Your task to perform on an android device: Check the weather Image 0: 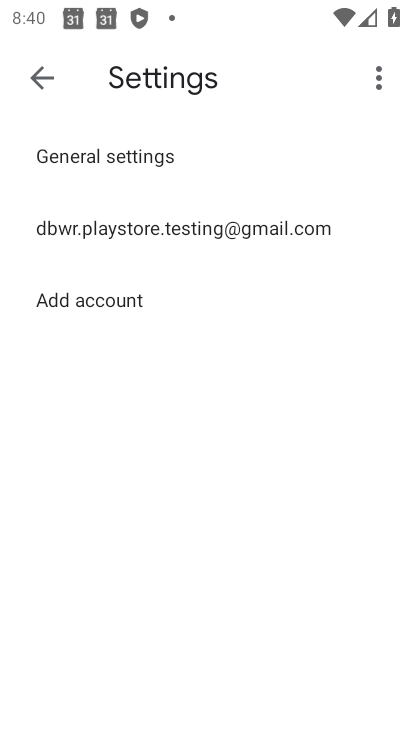
Step 0: click (30, 70)
Your task to perform on an android device: Check the weather Image 1: 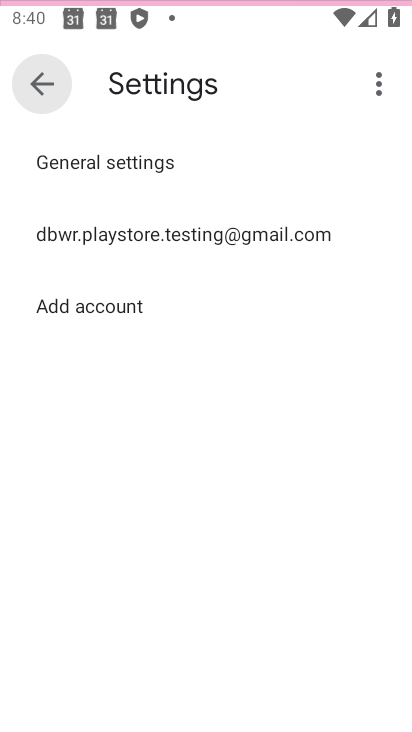
Step 1: click (32, 76)
Your task to perform on an android device: Check the weather Image 2: 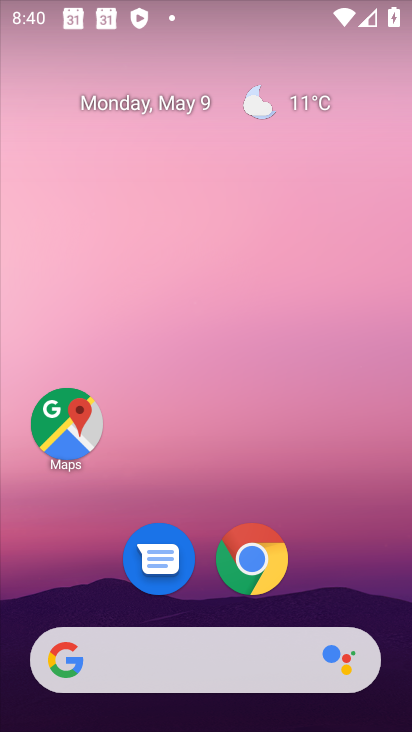
Step 2: drag from (123, 192) to (388, 322)
Your task to perform on an android device: Check the weather Image 3: 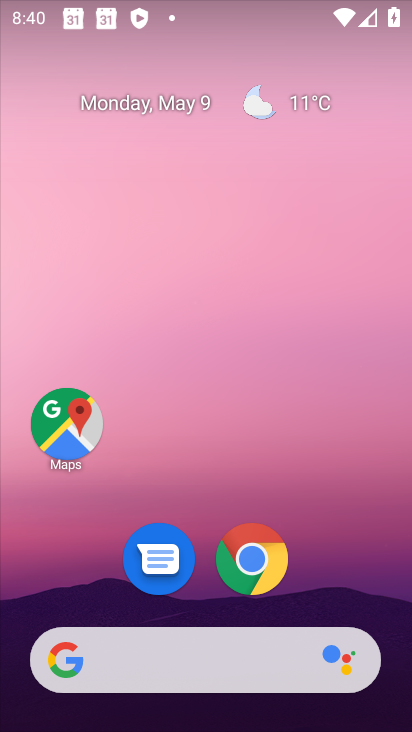
Step 3: drag from (16, 211) to (400, 350)
Your task to perform on an android device: Check the weather Image 4: 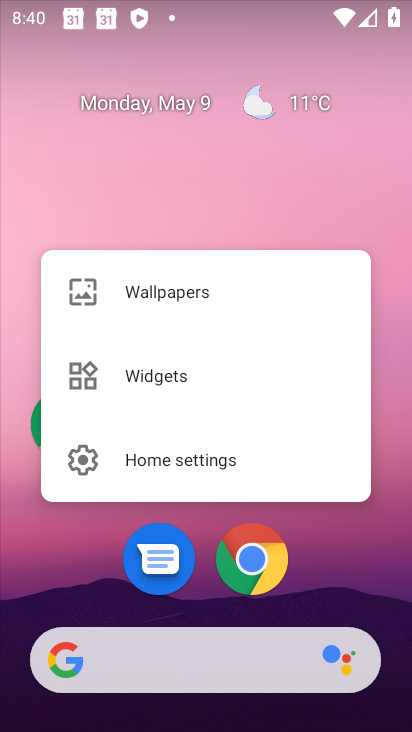
Step 4: drag from (26, 179) to (368, 397)
Your task to perform on an android device: Check the weather Image 5: 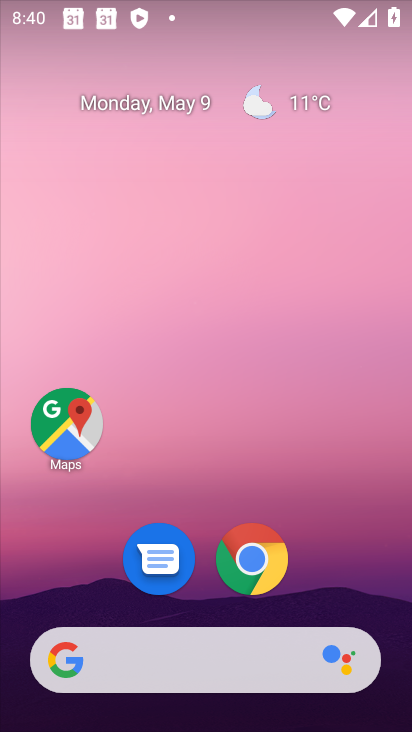
Step 5: drag from (4, 127) to (394, 355)
Your task to perform on an android device: Check the weather Image 6: 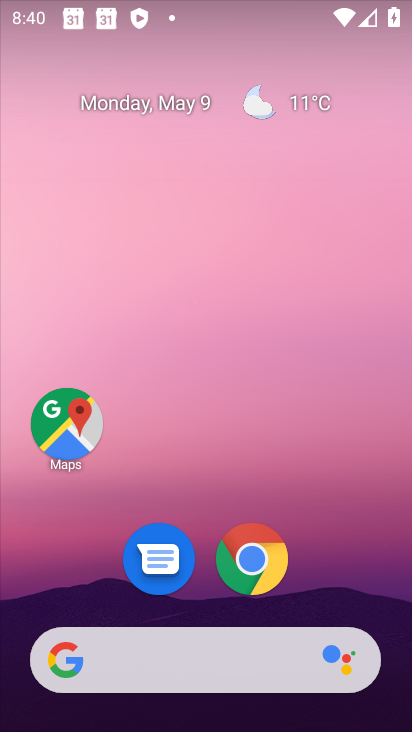
Step 6: click (256, 99)
Your task to perform on an android device: Check the weather Image 7: 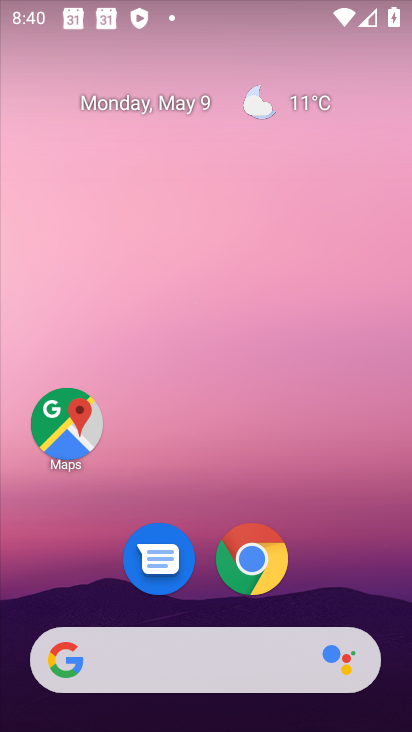
Step 7: click (256, 100)
Your task to perform on an android device: Check the weather Image 8: 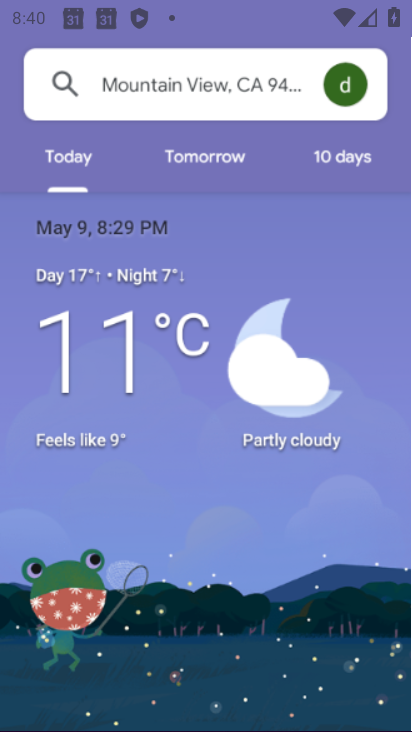
Step 8: click (261, 104)
Your task to perform on an android device: Check the weather Image 9: 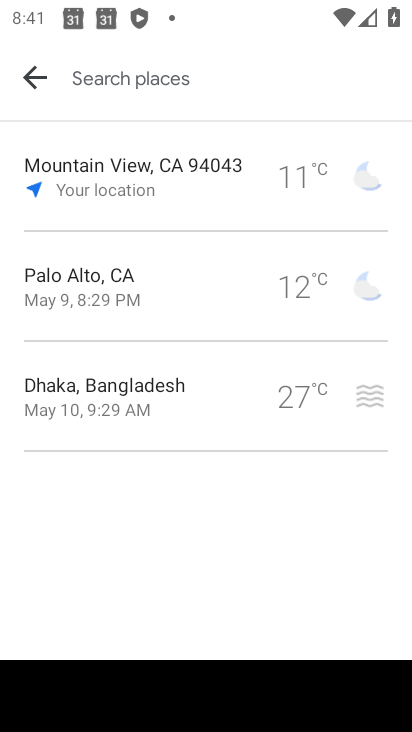
Step 9: drag from (175, 480) to (241, 102)
Your task to perform on an android device: Check the weather Image 10: 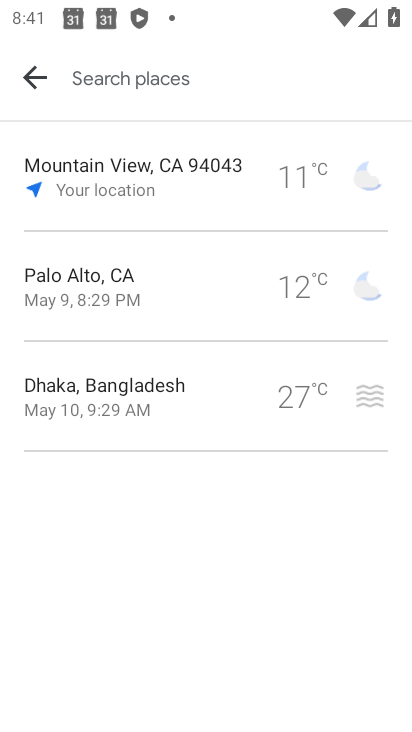
Step 10: click (29, 77)
Your task to perform on an android device: Check the weather Image 11: 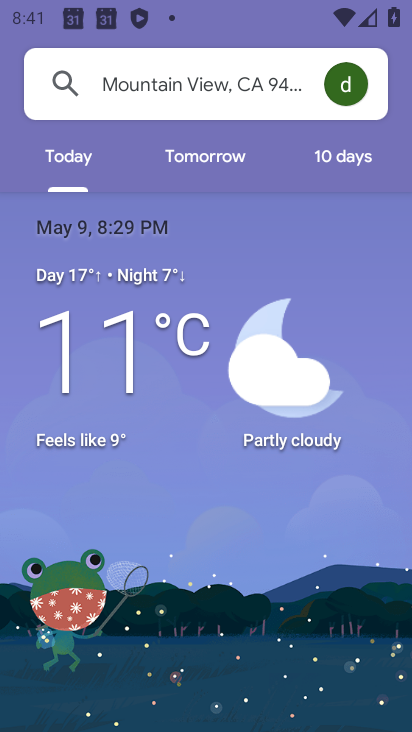
Step 11: task complete